Your task to perform on an android device: show emergency info Image 0: 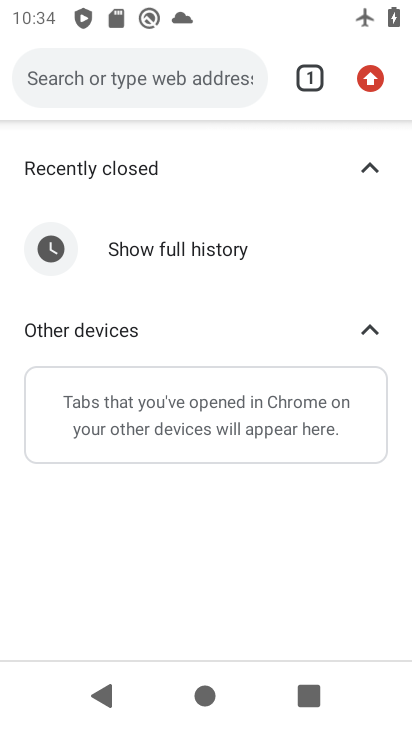
Step 0: press home button
Your task to perform on an android device: show emergency info Image 1: 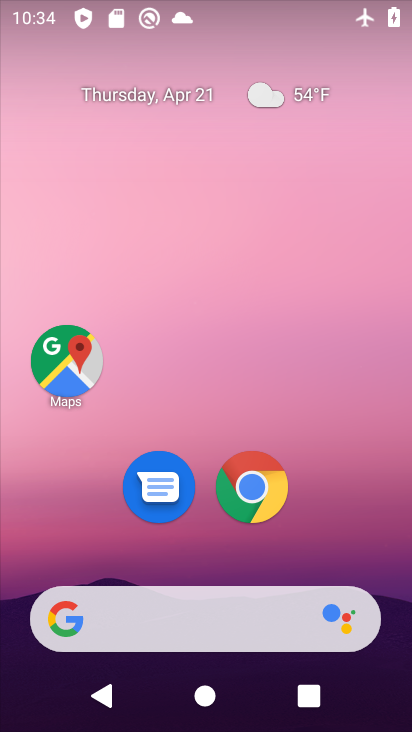
Step 1: drag from (352, 496) to (336, 95)
Your task to perform on an android device: show emergency info Image 2: 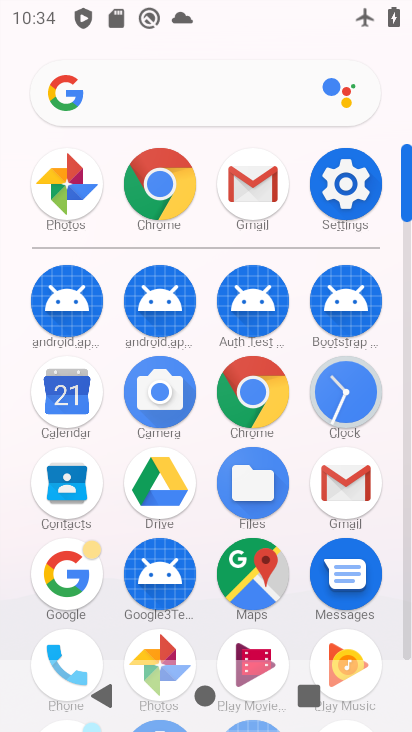
Step 2: click (334, 188)
Your task to perform on an android device: show emergency info Image 3: 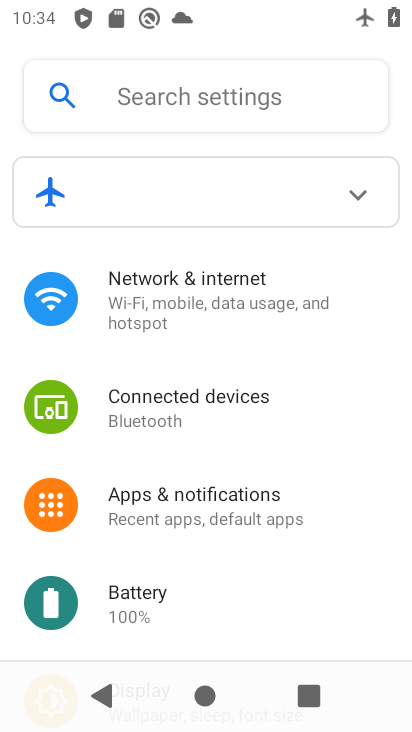
Step 3: drag from (288, 569) to (289, 347)
Your task to perform on an android device: show emergency info Image 4: 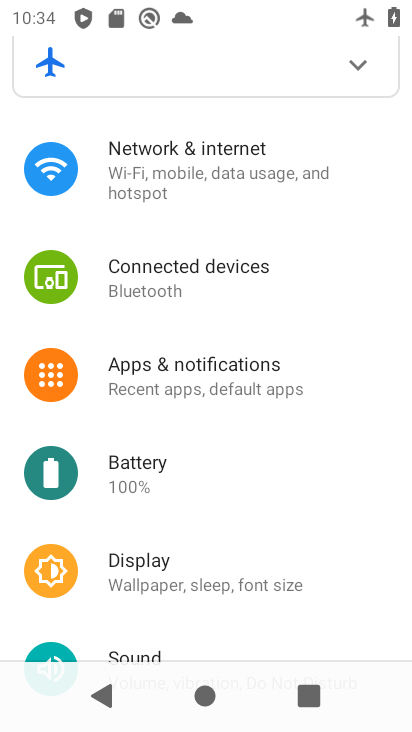
Step 4: drag from (306, 606) to (323, 286)
Your task to perform on an android device: show emergency info Image 5: 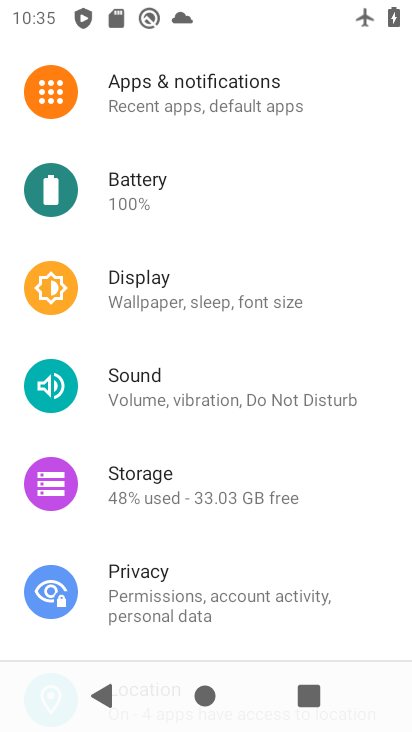
Step 5: drag from (296, 634) to (298, 295)
Your task to perform on an android device: show emergency info Image 6: 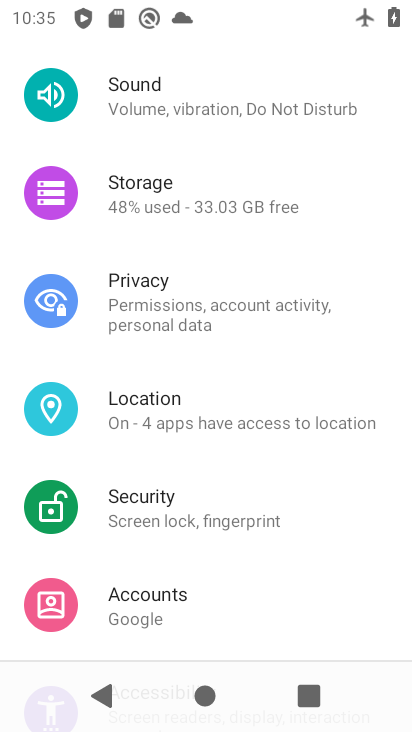
Step 6: drag from (273, 574) to (339, 202)
Your task to perform on an android device: show emergency info Image 7: 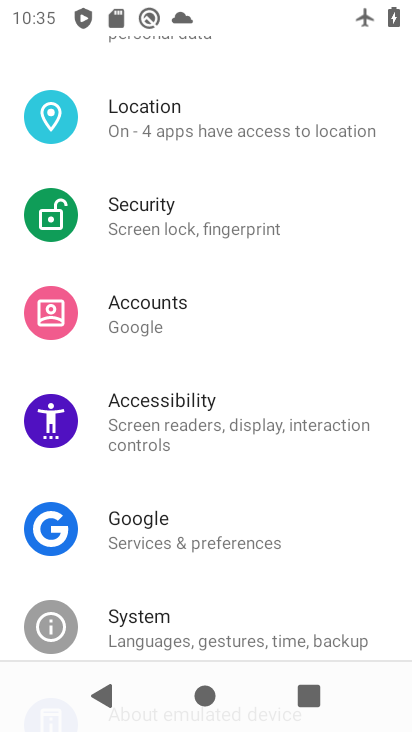
Step 7: drag from (245, 584) to (288, 268)
Your task to perform on an android device: show emergency info Image 8: 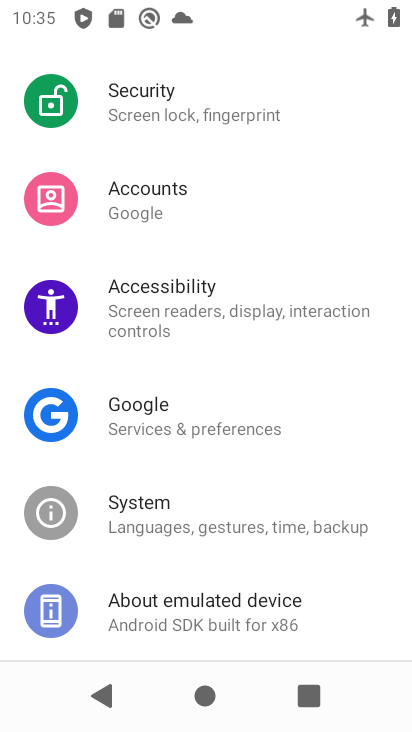
Step 8: click (239, 608)
Your task to perform on an android device: show emergency info Image 9: 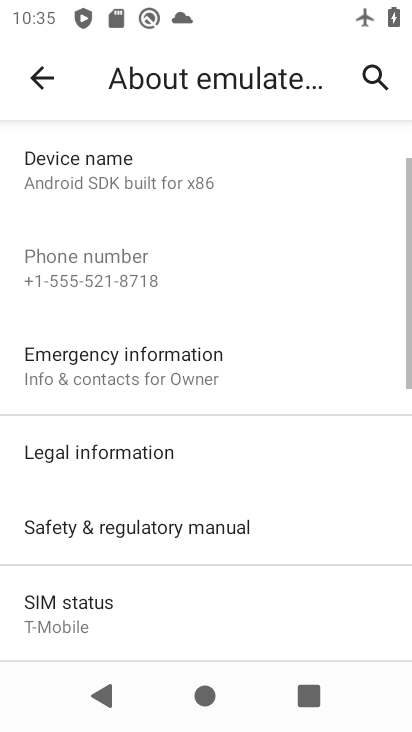
Step 9: click (180, 365)
Your task to perform on an android device: show emergency info Image 10: 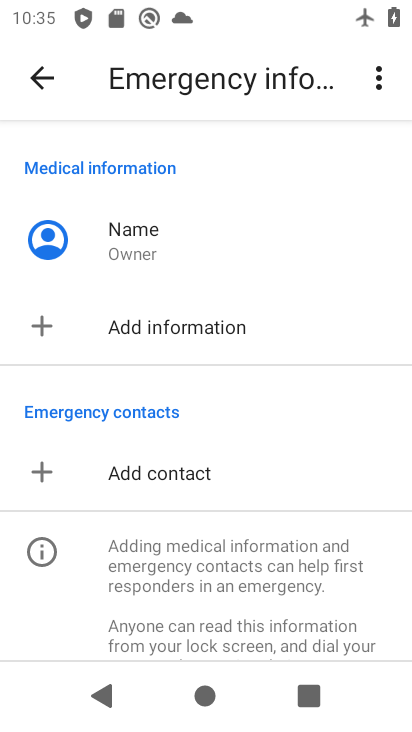
Step 10: task complete